Your task to perform on an android device: Go to notification settings Image 0: 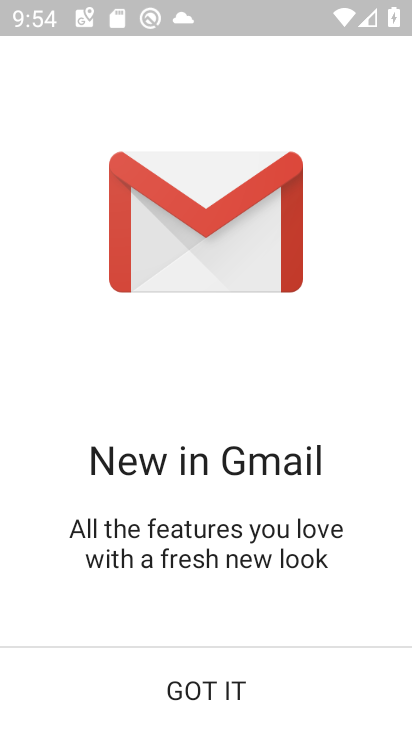
Step 0: click (249, 561)
Your task to perform on an android device: Go to notification settings Image 1: 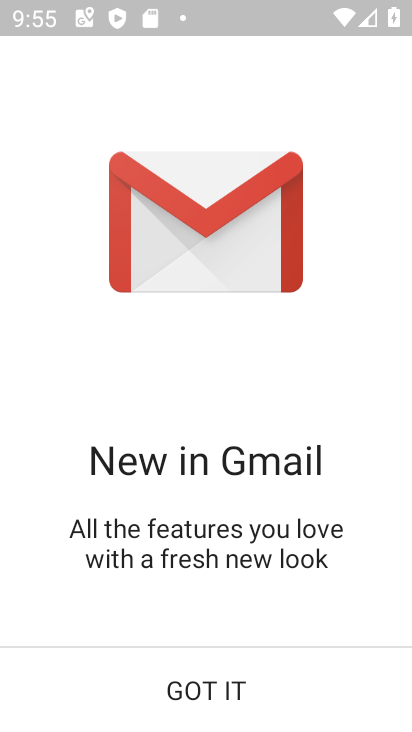
Step 1: click (202, 683)
Your task to perform on an android device: Go to notification settings Image 2: 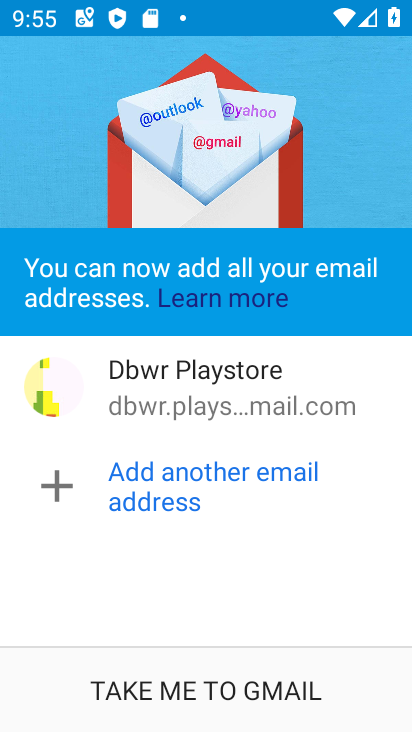
Step 2: press home button
Your task to perform on an android device: Go to notification settings Image 3: 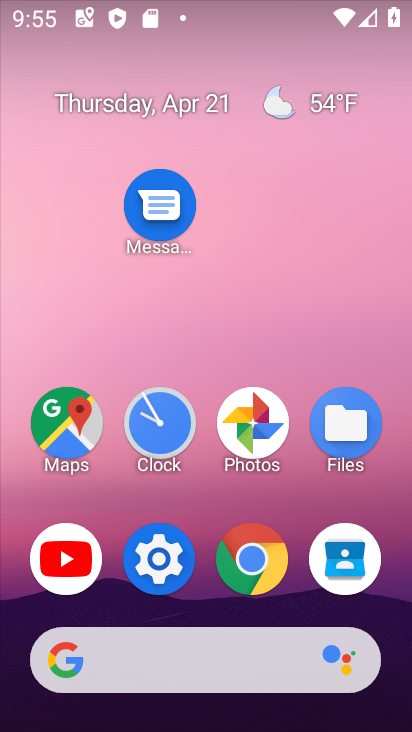
Step 3: click (155, 557)
Your task to perform on an android device: Go to notification settings Image 4: 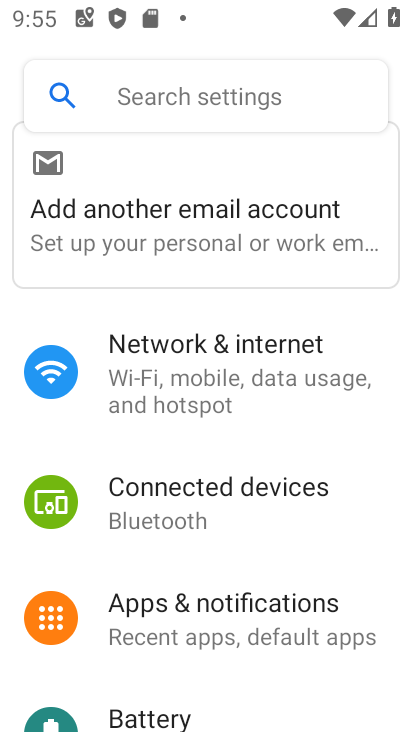
Step 4: click (235, 607)
Your task to perform on an android device: Go to notification settings Image 5: 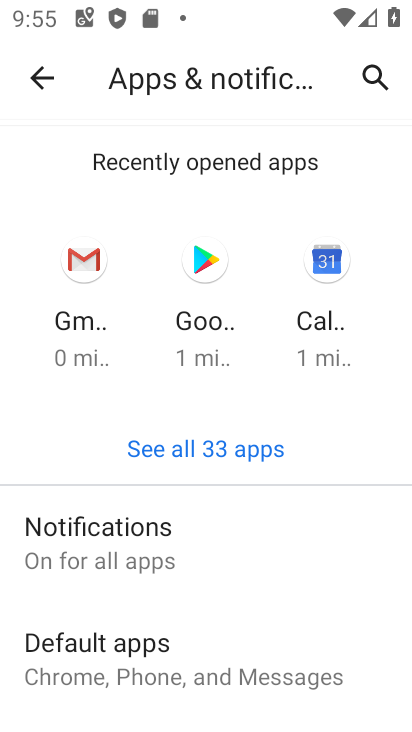
Step 5: click (140, 517)
Your task to perform on an android device: Go to notification settings Image 6: 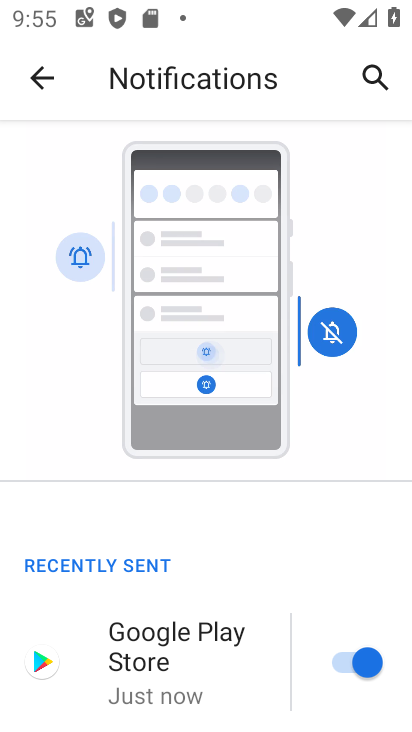
Step 6: task complete